Your task to perform on an android device: turn notification dots on Image 0: 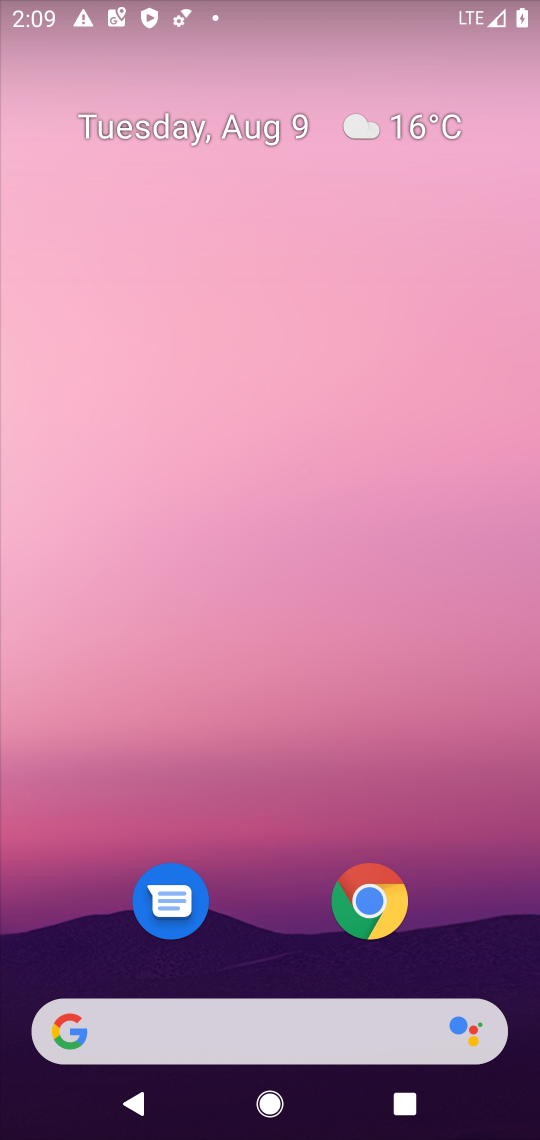
Step 0: drag from (493, 962) to (503, 126)
Your task to perform on an android device: turn notification dots on Image 1: 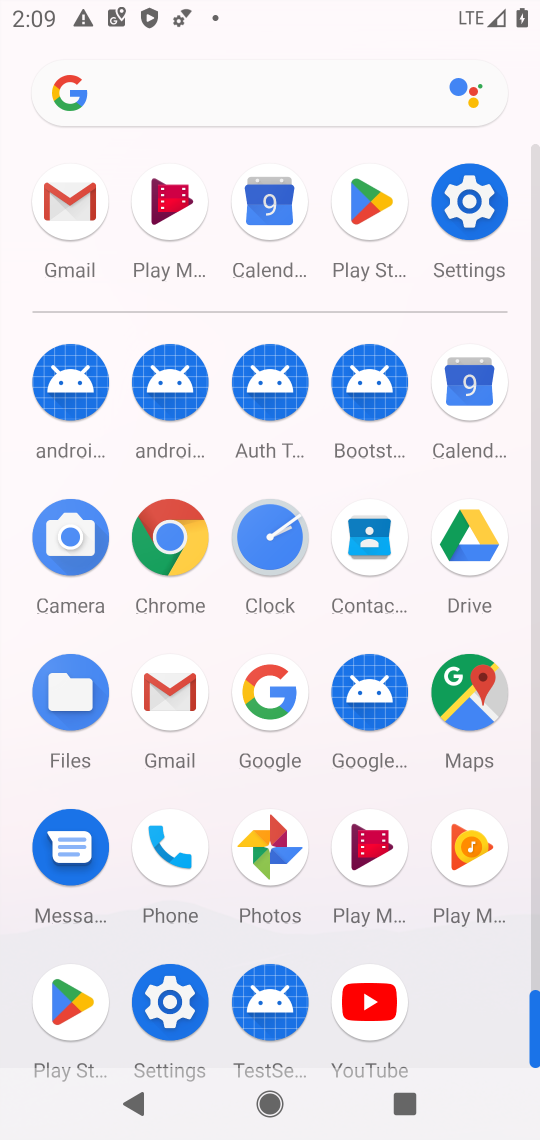
Step 1: click (174, 1006)
Your task to perform on an android device: turn notification dots on Image 2: 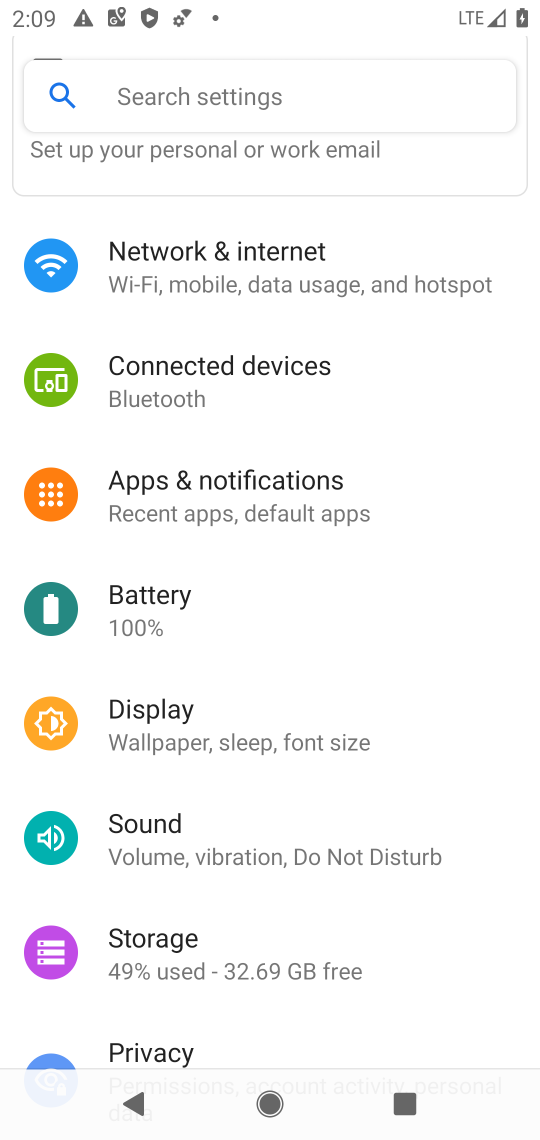
Step 2: click (198, 491)
Your task to perform on an android device: turn notification dots on Image 3: 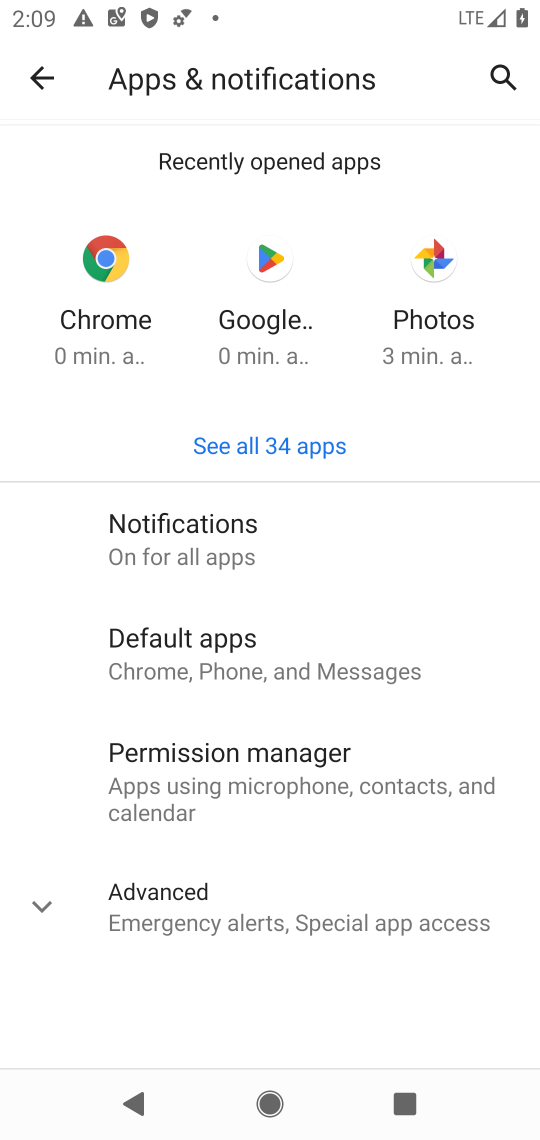
Step 3: click (189, 533)
Your task to perform on an android device: turn notification dots on Image 4: 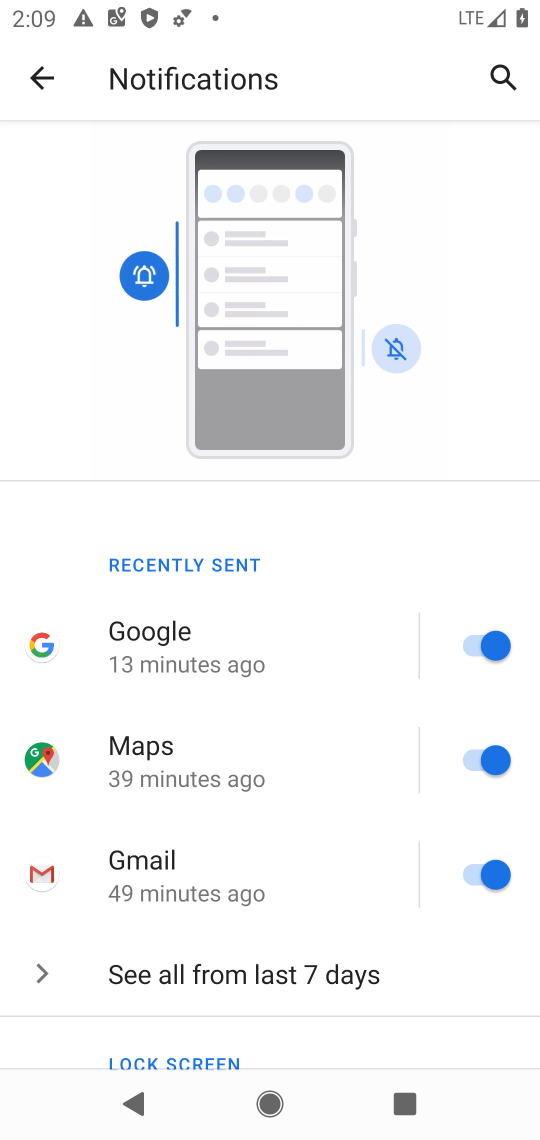
Step 4: drag from (407, 988) to (421, 235)
Your task to perform on an android device: turn notification dots on Image 5: 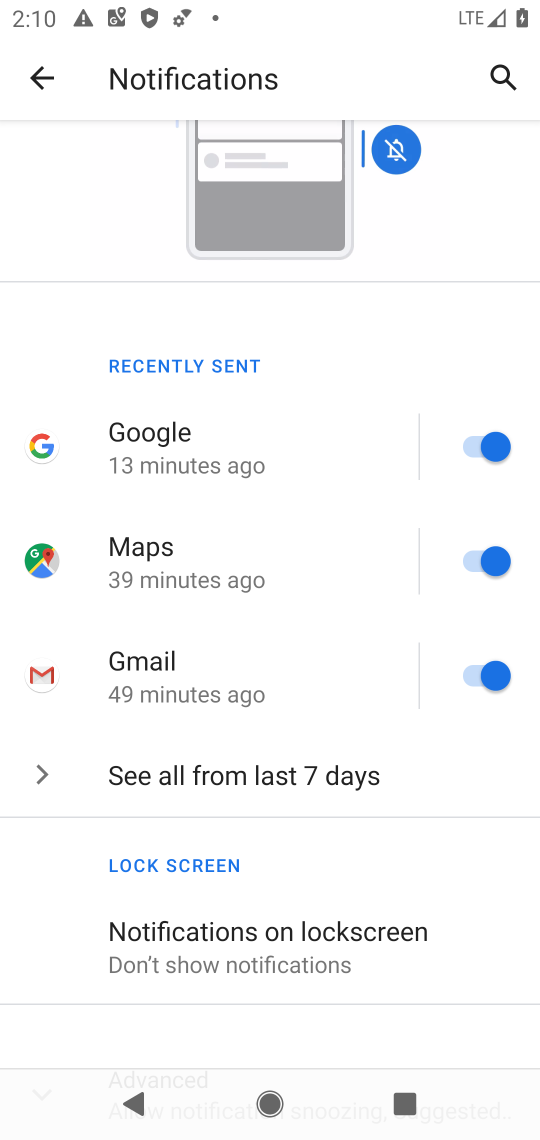
Step 5: drag from (360, 970) to (395, 321)
Your task to perform on an android device: turn notification dots on Image 6: 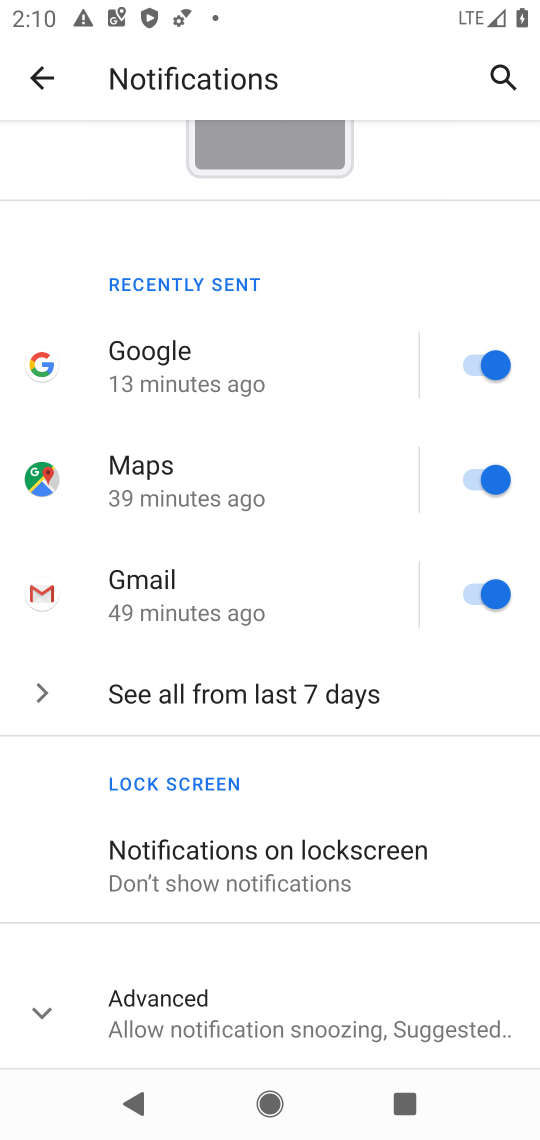
Step 6: click (36, 1027)
Your task to perform on an android device: turn notification dots on Image 7: 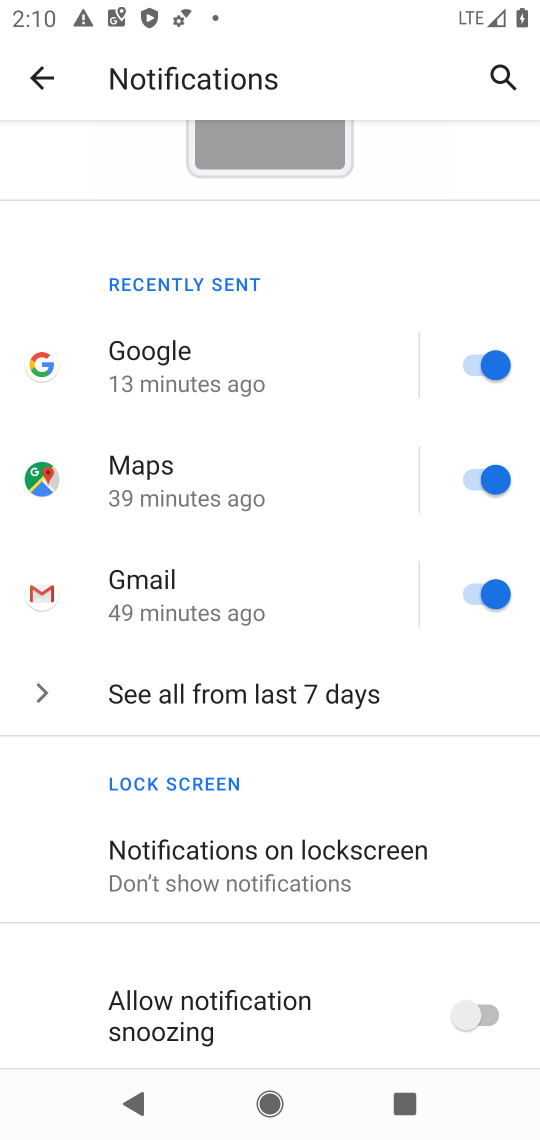
Step 7: drag from (395, 488) to (396, 404)
Your task to perform on an android device: turn notification dots on Image 8: 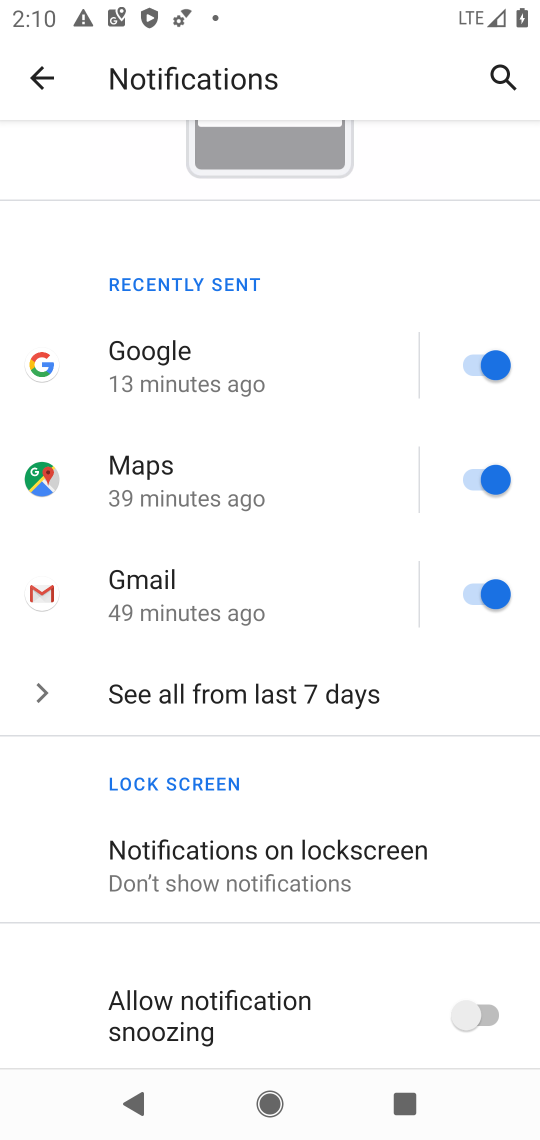
Step 8: drag from (420, 958) to (370, 336)
Your task to perform on an android device: turn notification dots on Image 9: 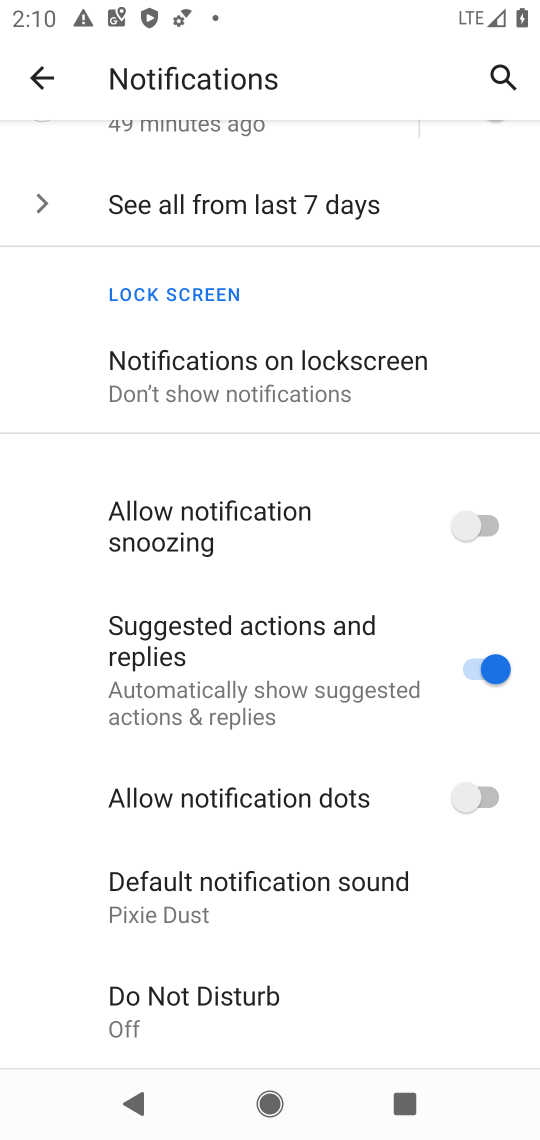
Step 9: click (492, 795)
Your task to perform on an android device: turn notification dots on Image 10: 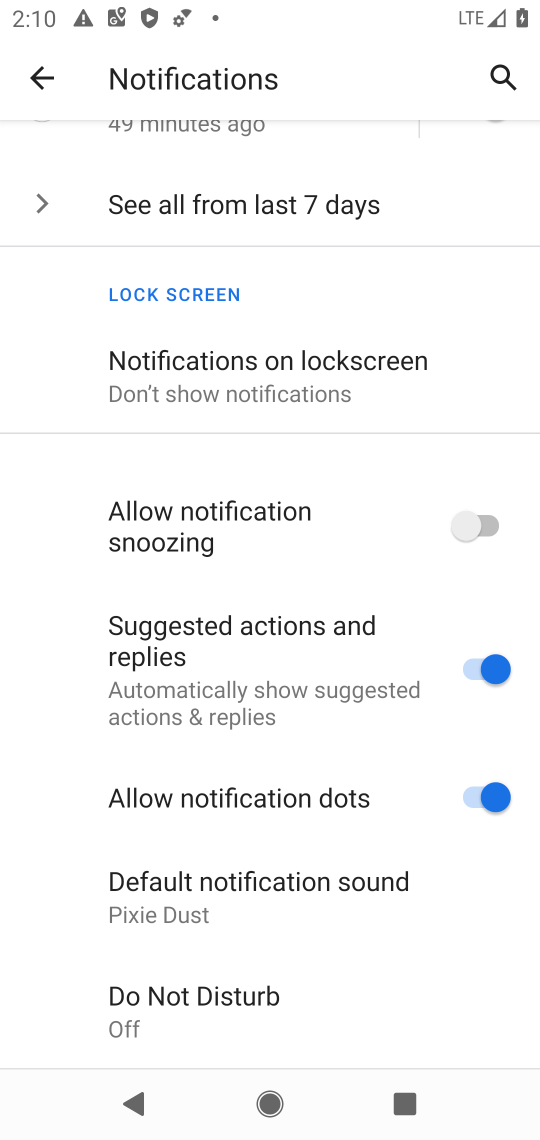
Step 10: task complete